Your task to perform on an android device: Go to Reddit.com Image 0: 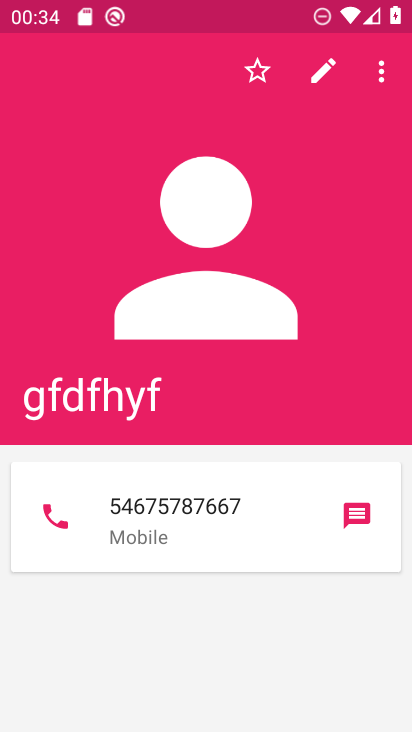
Step 0: press home button
Your task to perform on an android device: Go to Reddit.com Image 1: 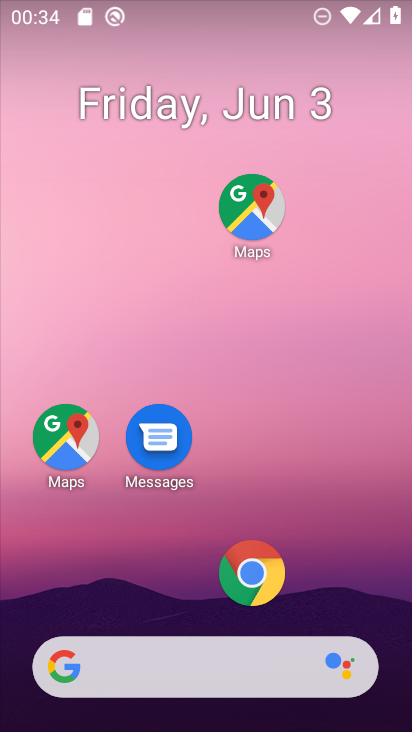
Step 1: click (253, 589)
Your task to perform on an android device: Go to Reddit.com Image 2: 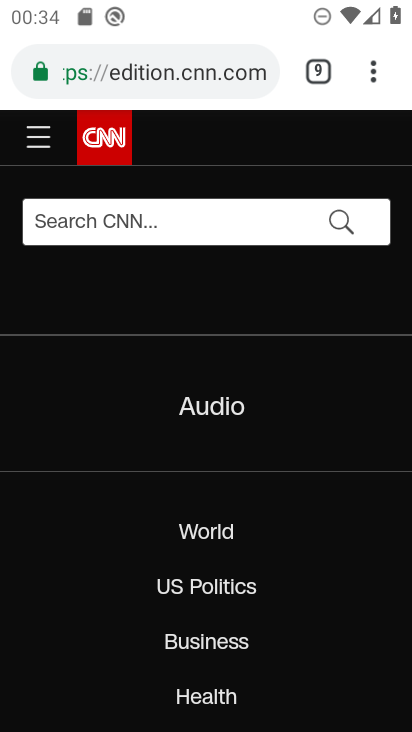
Step 2: click (321, 80)
Your task to perform on an android device: Go to Reddit.com Image 3: 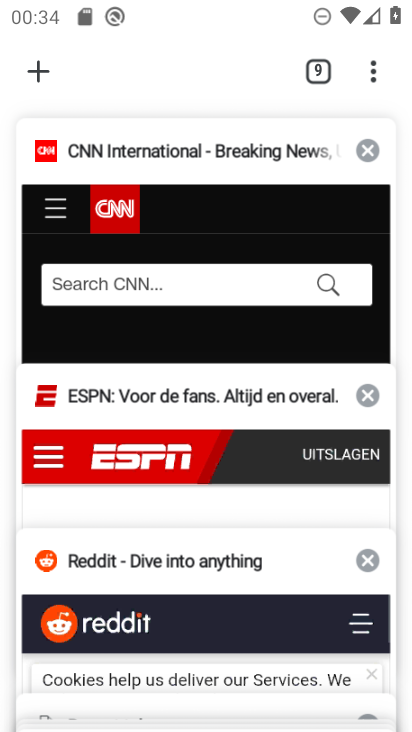
Step 3: click (158, 632)
Your task to perform on an android device: Go to Reddit.com Image 4: 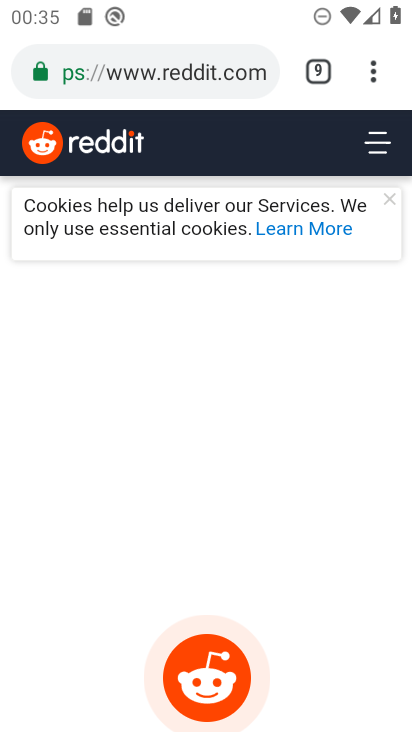
Step 4: task complete